Your task to perform on an android device: all mails in gmail Image 0: 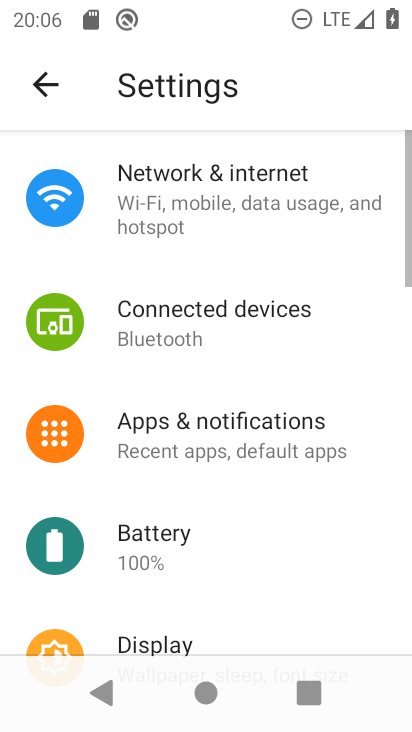
Step 0: press home button
Your task to perform on an android device: all mails in gmail Image 1: 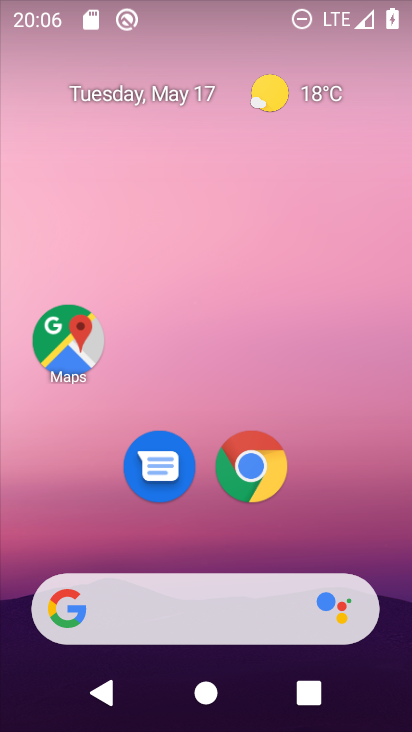
Step 1: drag from (188, 618) to (277, 205)
Your task to perform on an android device: all mails in gmail Image 2: 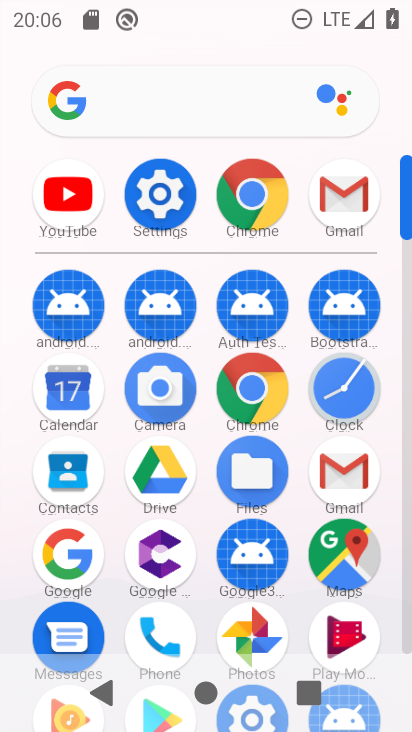
Step 2: click (342, 198)
Your task to perform on an android device: all mails in gmail Image 3: 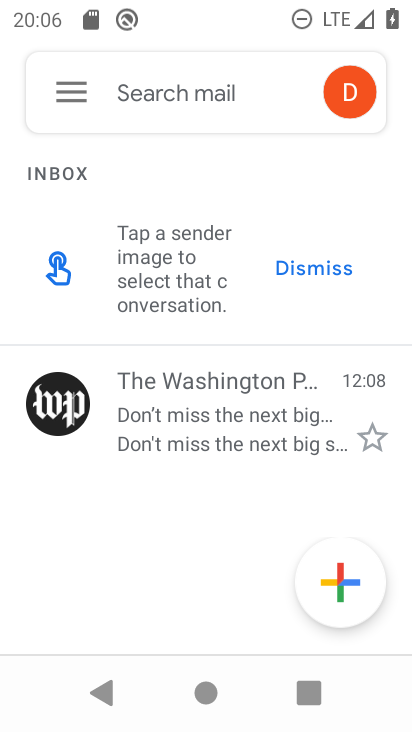
Step 3: click (72, 99)
Your task to perform on an android device: all mails in gmail Image 4: 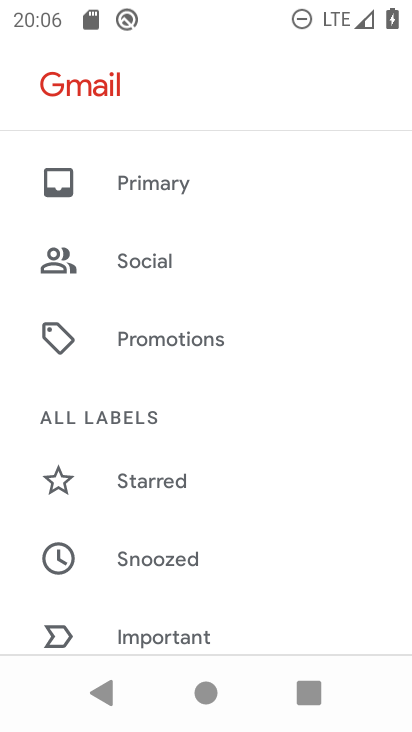
Step 4: drag from (246, 549) to (382, 97)
Your task to perform on an android device: all mails in gmail Image 5: 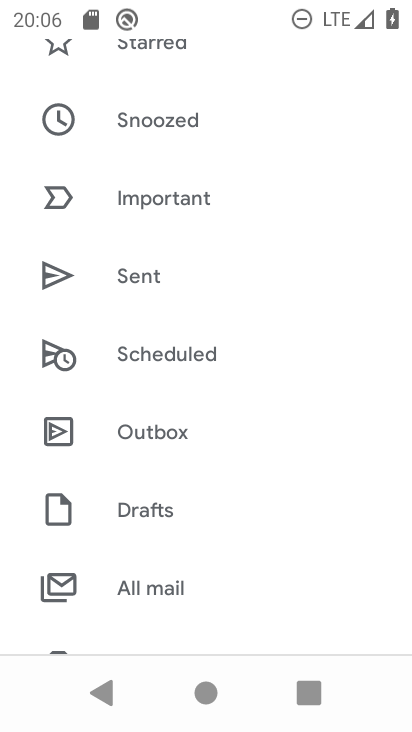
Step 5: click (164, 585)
Your task to perform on an android device: all mails in gmail Image 6: 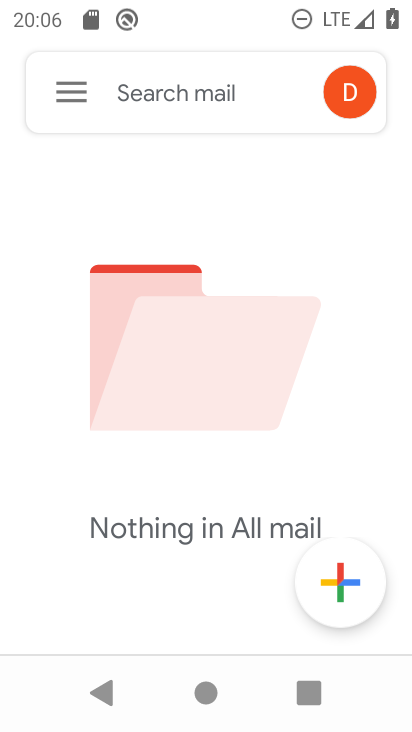
Step 6: task complete